Your task to perform on an android device: When is my next meeting? Image 0: 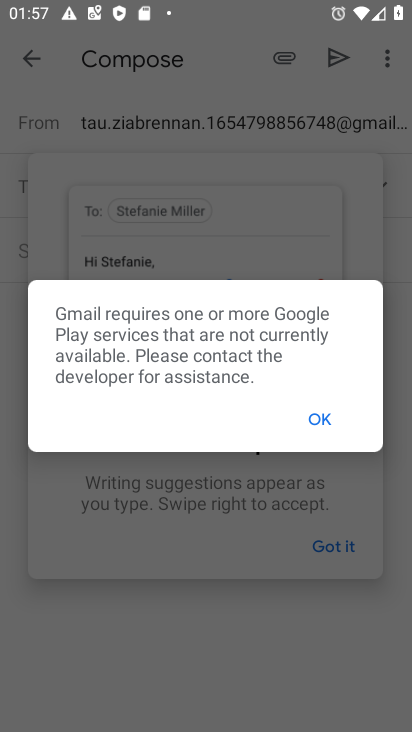
Step 0: press home button
Your task to perform on an android device: When is my next meeting? Image 1: 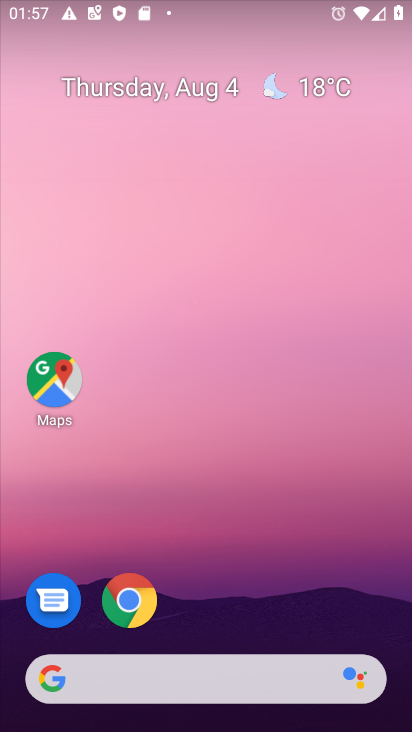
Step 1: drag from (148, 685) to (275, 176)
Your task to perform on an android device: When is my next meeting? Image 2: 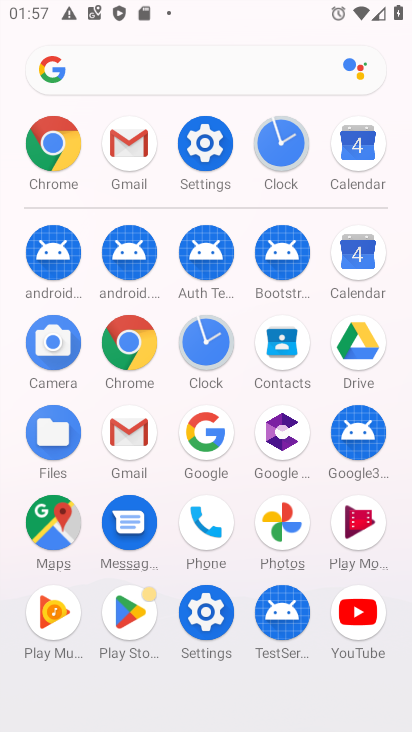
Step 2: click (132, 147)
Your task to perform on an android device: When is my next meeting? Image 3: 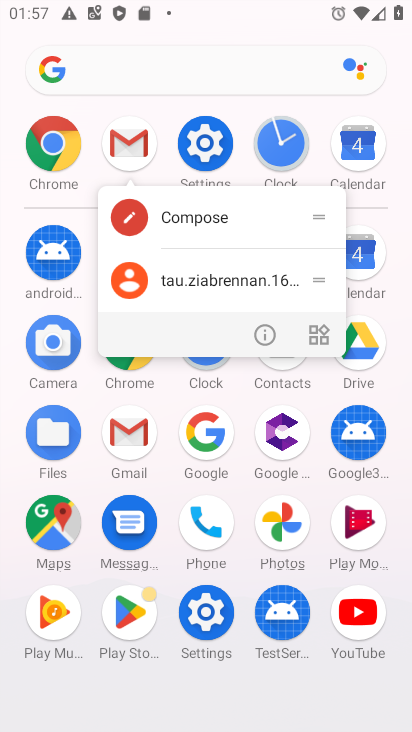
Step 3: click (363, 144)
Your task to perform on an android device: When is my next meeting? Image 4: 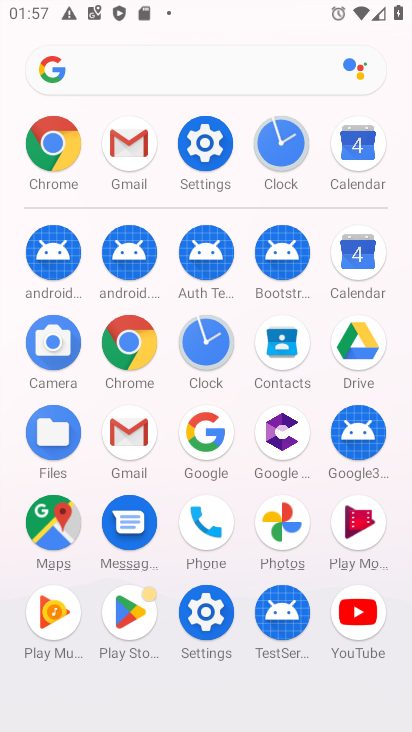
Step 4: click (365, 149)
Your task to perform on an android device: When is my next meeting? Image 5: 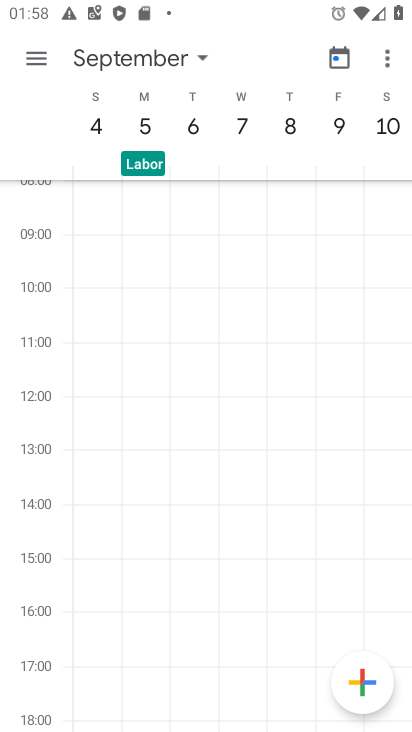
Step 5: click (106, 61)
Your task to perform on an android device: When is my next meeting? Image 6: 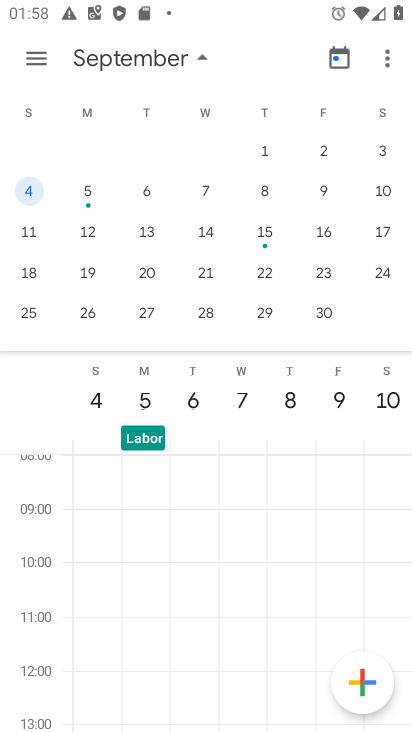
Step 6: drag from (64, 267) to (410, 285)
Your task to perform on an android device: When is my next meeting? Image 7: 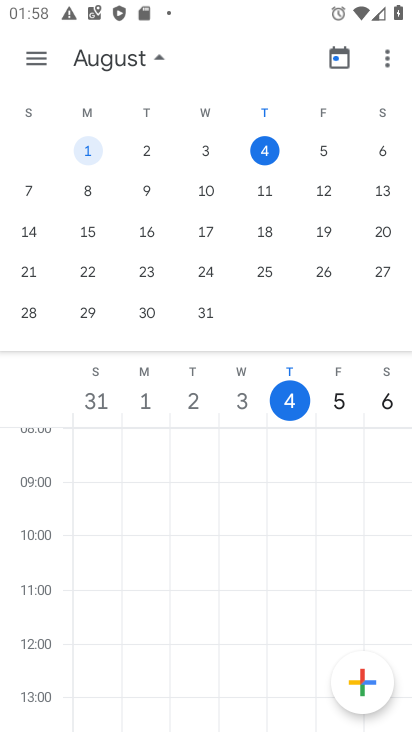
Step 7: click (183, 145)
Your task to perform on an android device: When is my next meeting? Image 8: 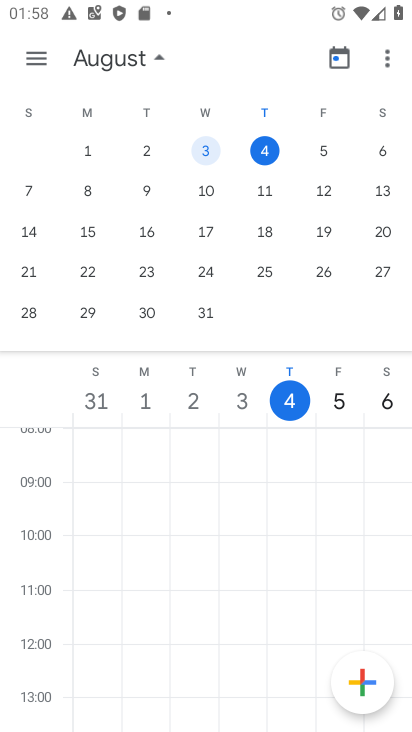
Step 8: click (264, 149)
Your task to perform on an android device: When is my next meeting? Image 9: 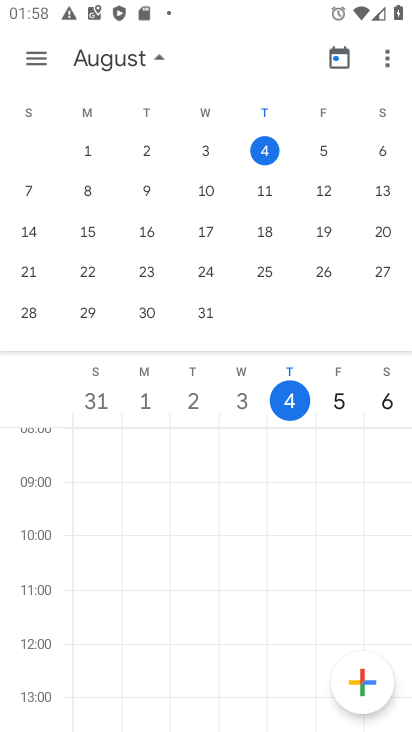
Step 9: click (29, 50)
Your task to perform on an android device: When is my next meeting? Image 10: 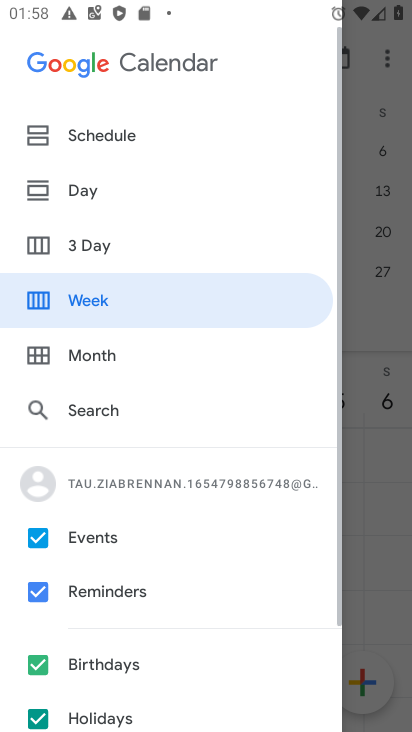
Step 10: click (110, 306)
Your task to perform on an android device: When is my next meeting? Image 11: 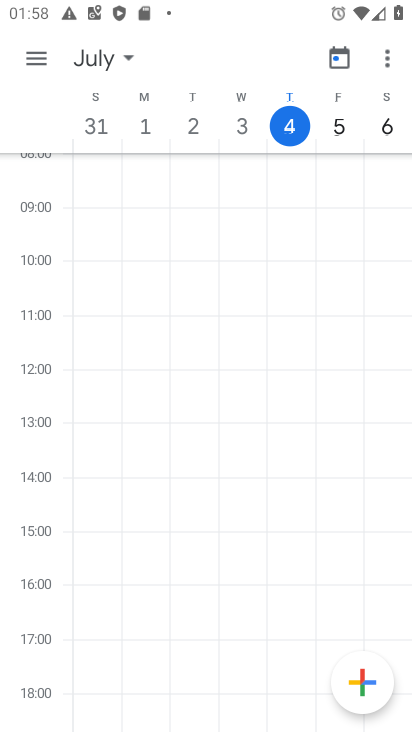
Step 11: click (30, 51)
Your task to perform on an android device: When is my next meeting? Image 12: 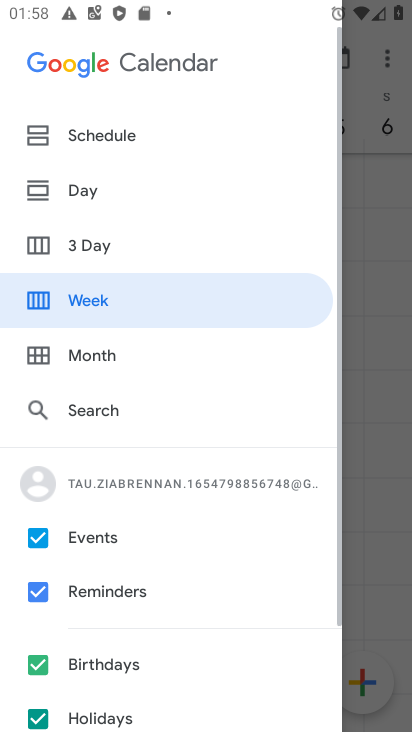
Step 12: click (97, 134)
Your task to perform on an android device: When is my next meeting? Image 13: 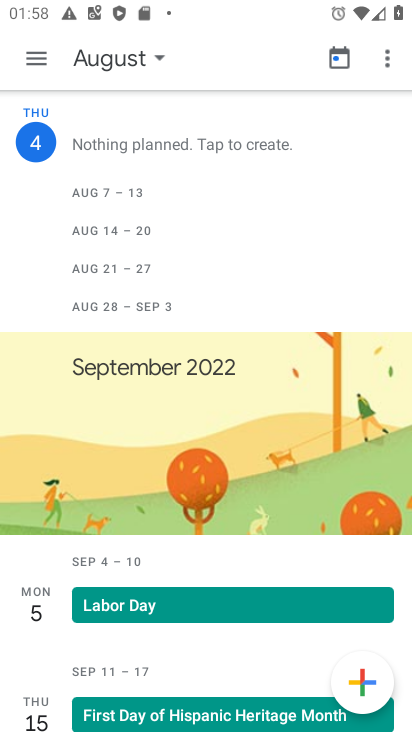
Step 13: task complete